Your task to perform on an android device: turn off location history Image 0: 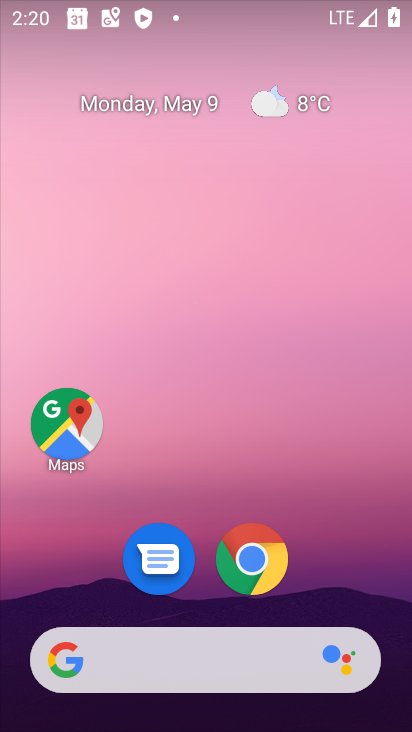
Step 0: drag from (325, 564) to (266, 54)
Your task to perform on an android device: turn off location history Image 1: 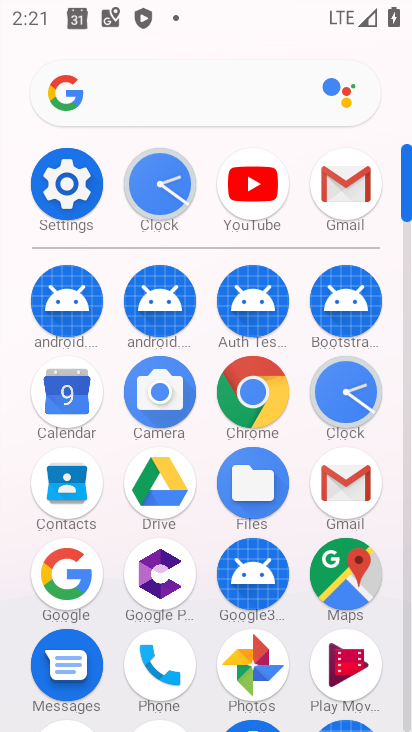
Step 1: click (59, 192)
Your task to perform on an android device: turn off location history Image 2: 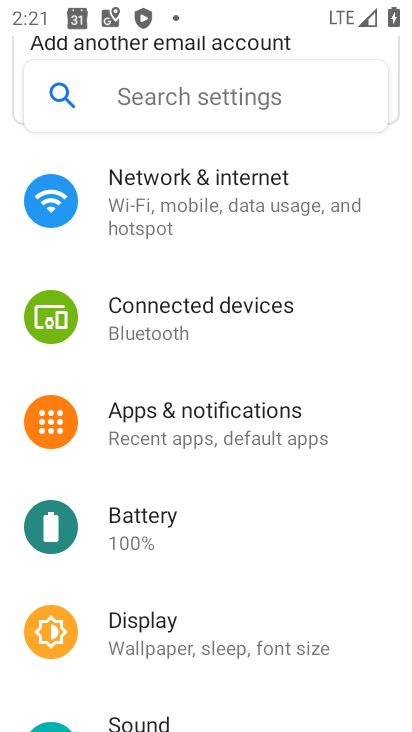
Step 2: drag from (236, 575) to (212, 277)
Your task to perform on an android device: turn off location history Image 3: 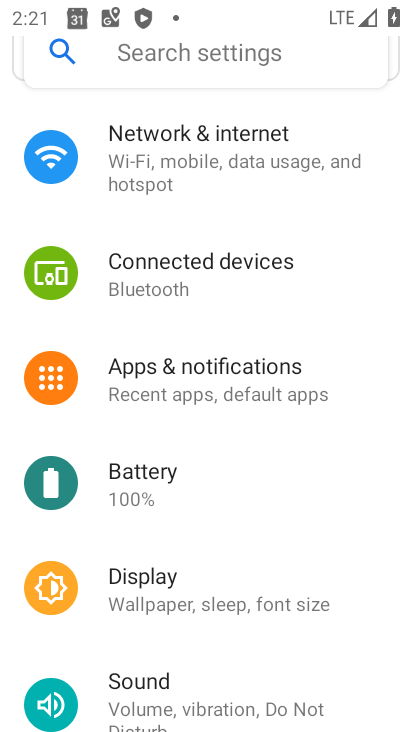
Step 3: drag from (163, 639) to (112, 179)
Your task to perform on an android device: turn off location history Image 4: 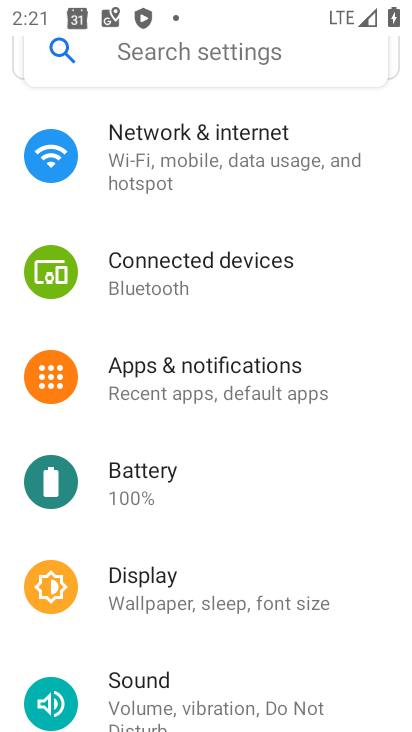
Step 4: drag from (240, 518) to (222, 191)
Your task to perform on an android device: turn off location history Image 5: 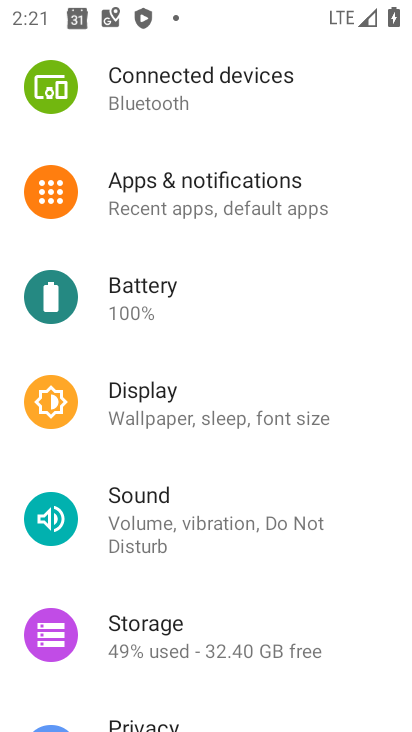
Step 5: drag from (198, 578) to (180, 136)
Your task to perform on an android device: turn off location history Image 6: 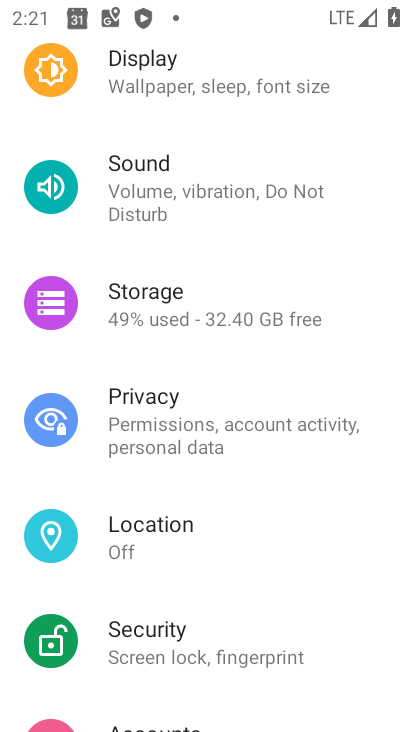
Step 6: click (143, 524)
Your task to perform on an android device: turn off location history Image 7: 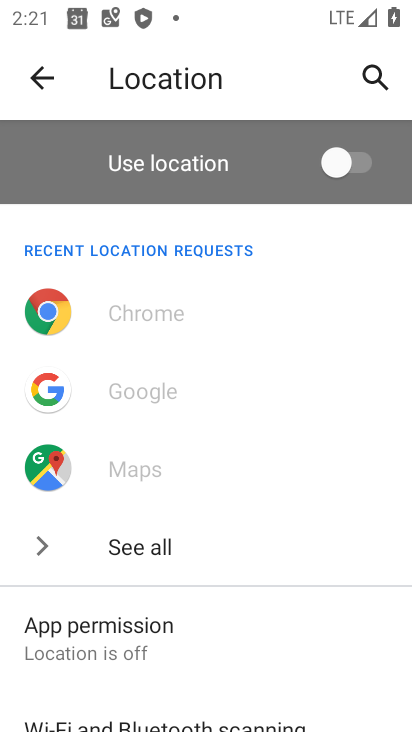
Step 7: drag from (226, 436) to (159, 196)
Your task to perform on an android device: turn off location history Image 8: 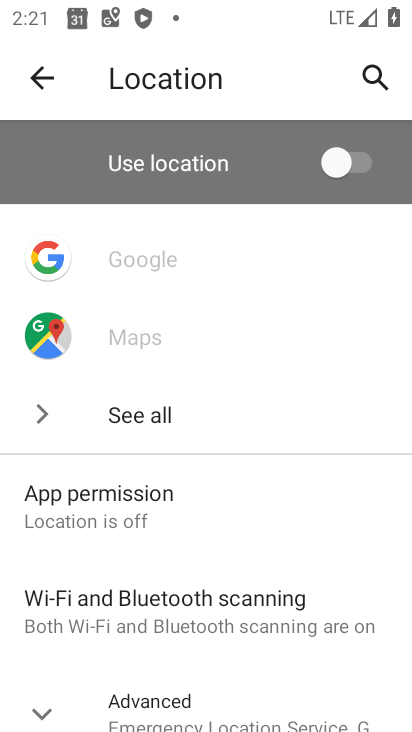
Step 8: drag from (214, 510) to (148, 147)
Your task to perform on an android device: turn off location history Image 9: 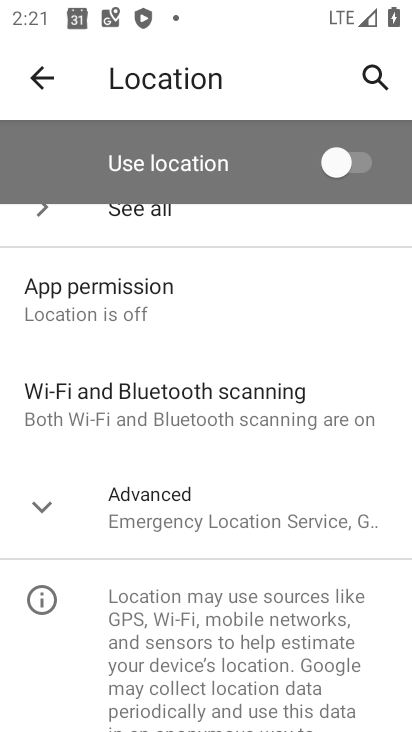
Step 9: click (51, 517)
Your task to perform on an android device: turn off location history Image 10: 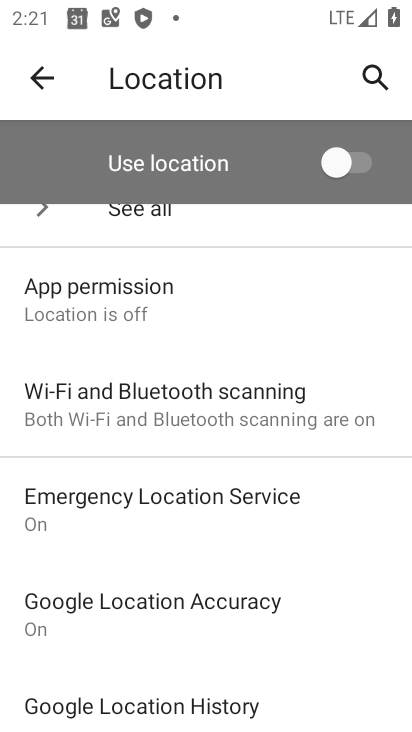
Step 10: drag from (273, 544) to (199, 100)
Your task to perform on an android device: turn off location history Image 11: 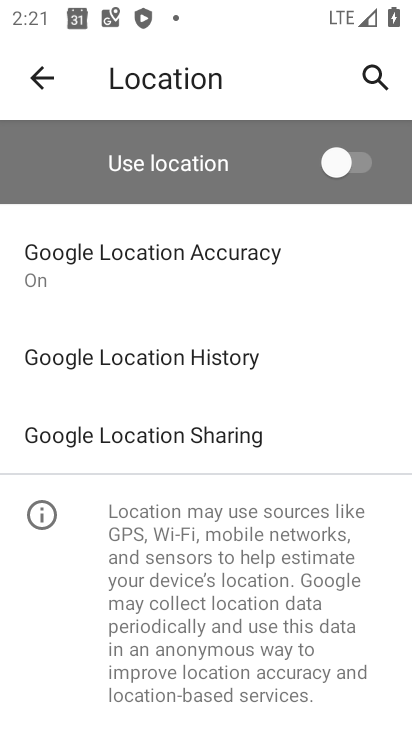
Step 11: click (228, 357)
Your task to perform on an android device: turn off location history Image 12: 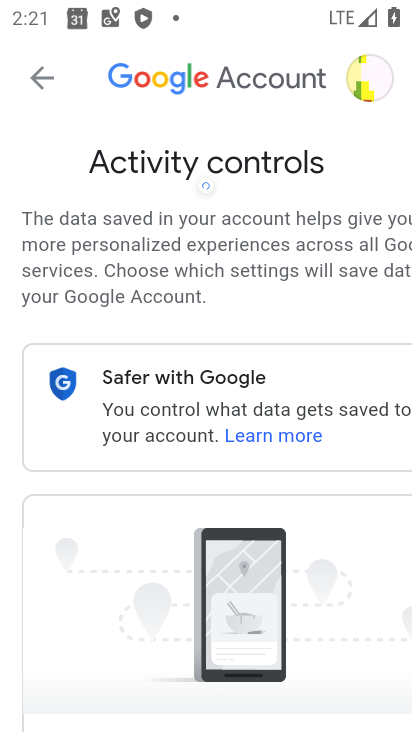
Step 12: task complete